Your task to perform on an android device: turn notification dots off Image 0: 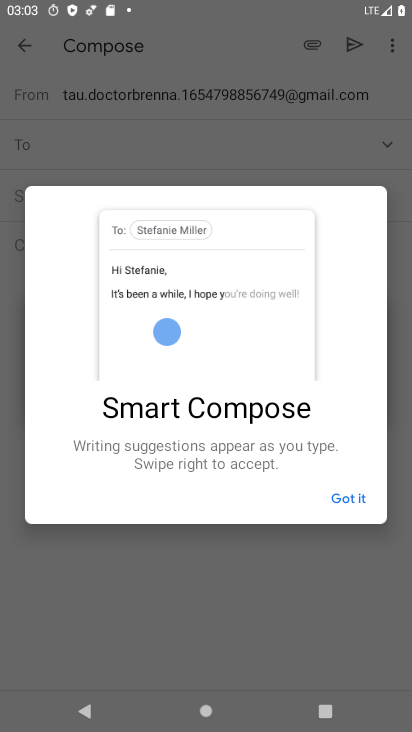
Step 0: press home button
Your task to perform on an android device: turn notification dots off Image 1: 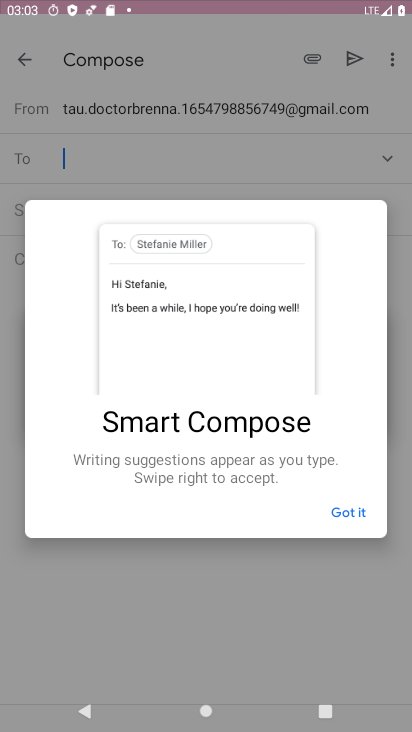
Step 1: drag from (241, 601) to (328, 219)
Your task to perform on an android device: turn notification dots off Image 2: 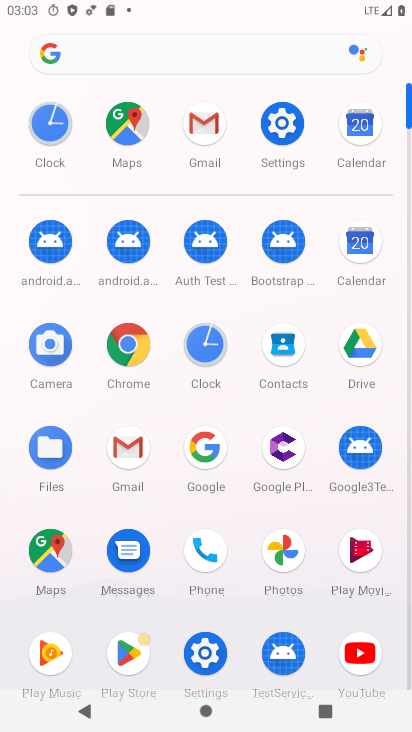
Step 2: click (281, 121)
Your task to perform on an android device: turn notification dots off Image 3: 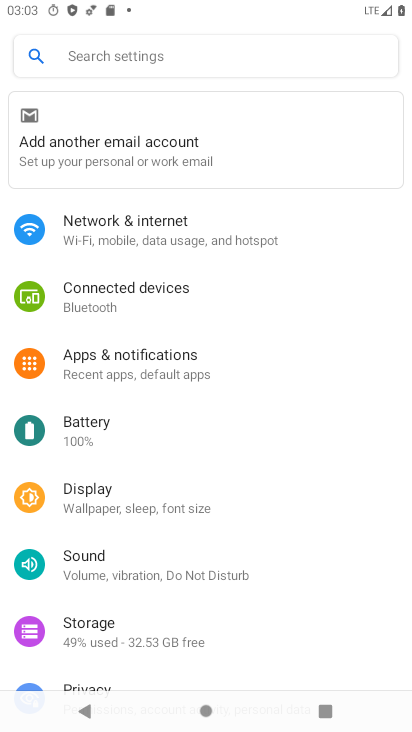
Step 3: click (171, 356)
Your task to perform on an android device: turn notification dots off Image 4: 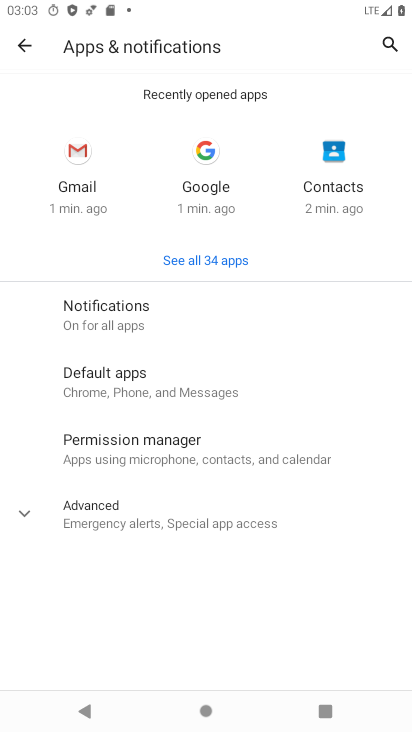
Step 4: click (128, 321)
Your task to perform on an android device: turn notification dots off Image 5: 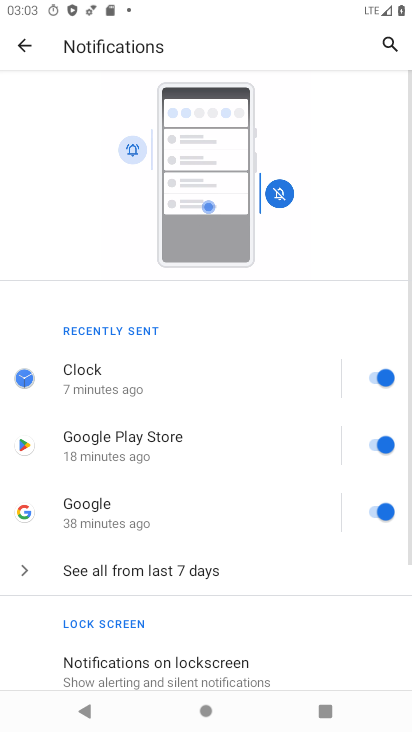
Step 5: drag from (193, 634) to (314, 84)
Your task to perform on an android device: turn notification dots off Image 6: 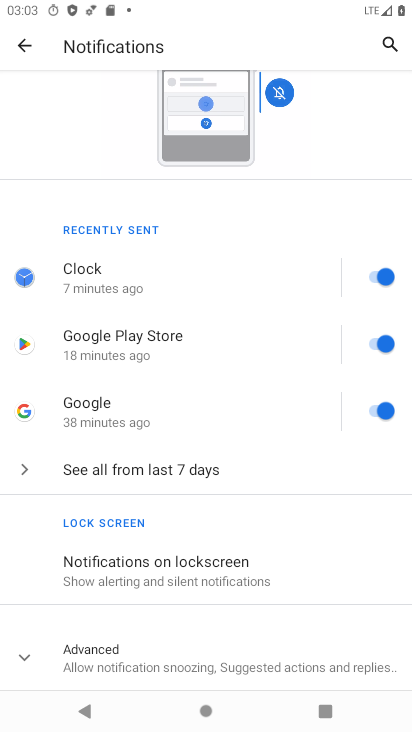
Step 6: click (157, 675)
Your task to perform on an android device: turn notification dots off Image 7: 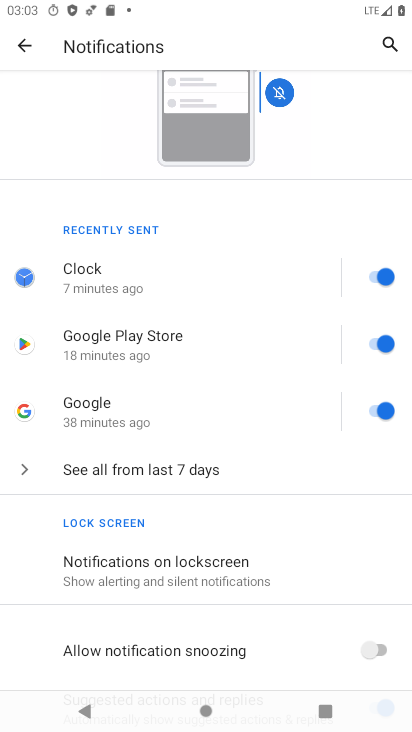
Step 7: drag from (205, 565) to (293, 157)
Your task to perform on an android device: turn notification dots off Image 8: 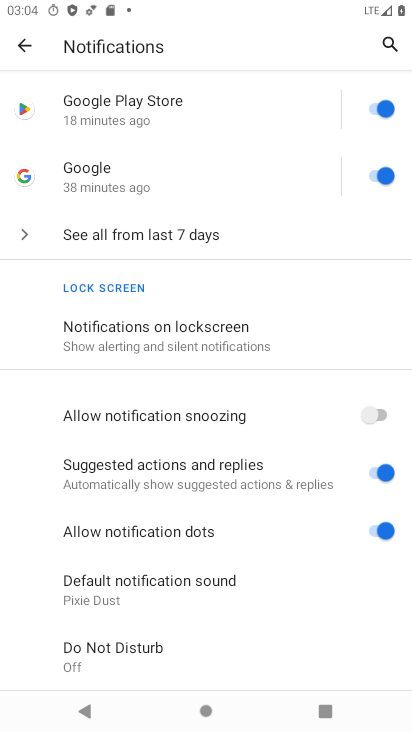
Step 8: click (379, 526)
Your task to perform on an android device: turn notification dots off Image 9: 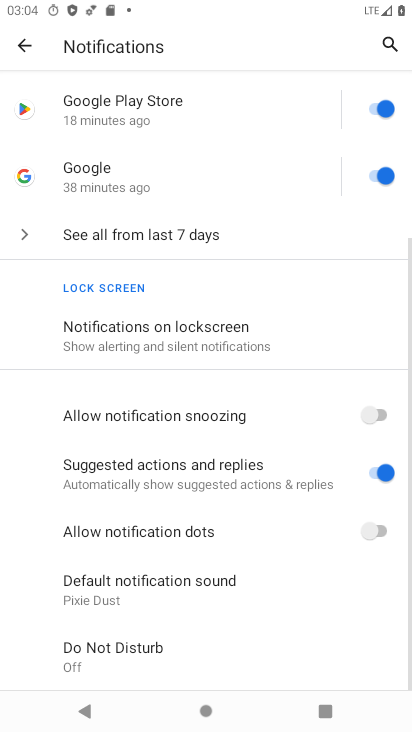
Step 9: task complete